Your task to perform on an android device: change text size in settings app Image 0: 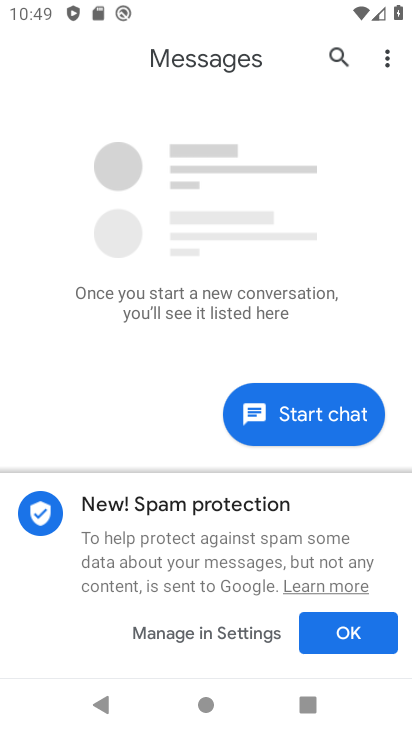
Step 0: press home button
Your task to perform on an android device: change text size in settings app Image 1: 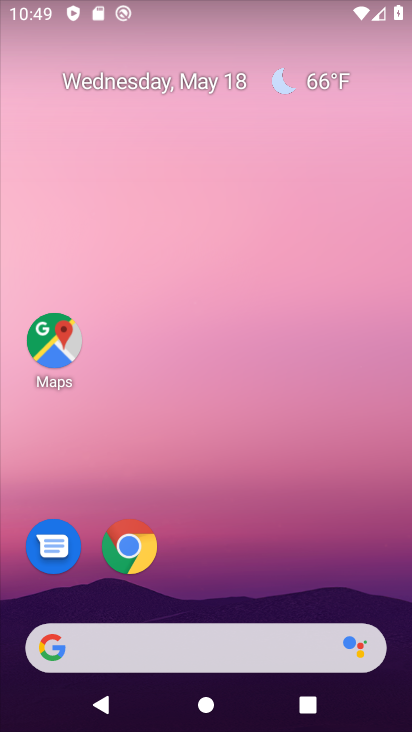
Step 1: drag from (222, 726) to (225, 229)
Your task to perform on an android device: change text size in settings app Image 2: 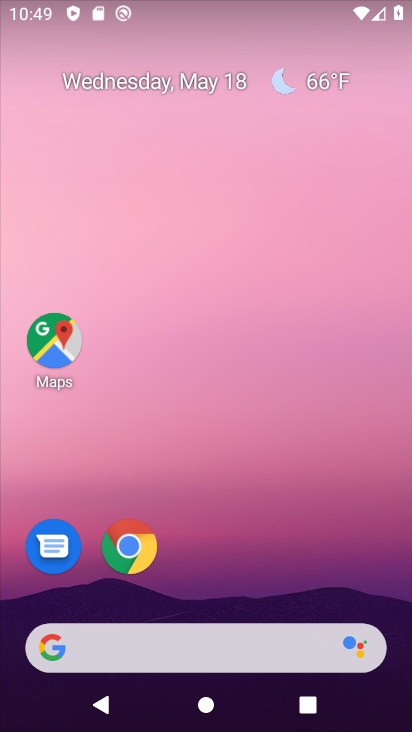
Step 2: drag from (227, 725) to (230, 168)
Your task to perform on an android device: change text size in settings app Image 3: 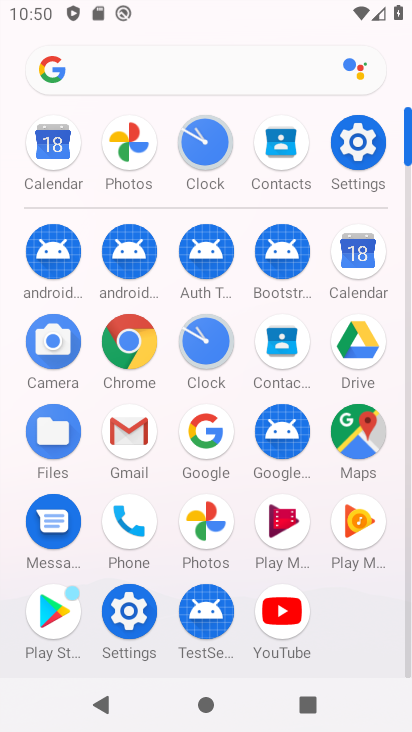
Step 3: click (132, 610)
Your task to perform on an android device: change text size in settings app Image 4: 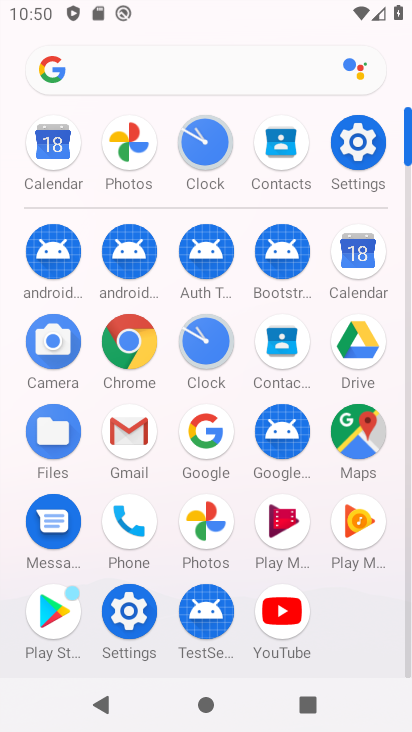
Step 4: click (359, 143)
Your task to perform on an android device: change text size in settings app Image 5: 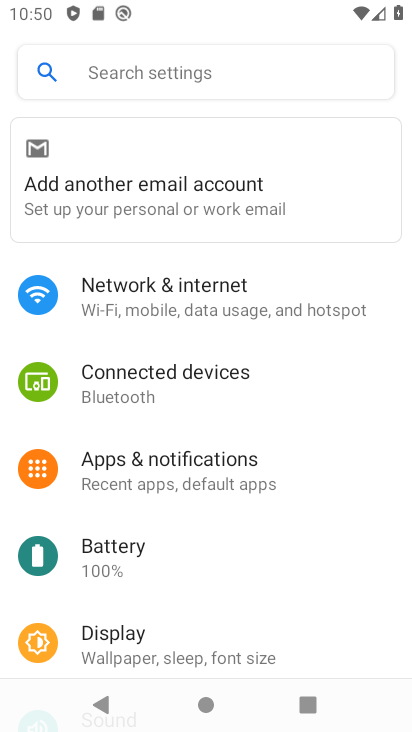
Step 5: drag from (161, 652) to (184, 365)
Your task to perform on an android device: change text size in settings app Image 6: 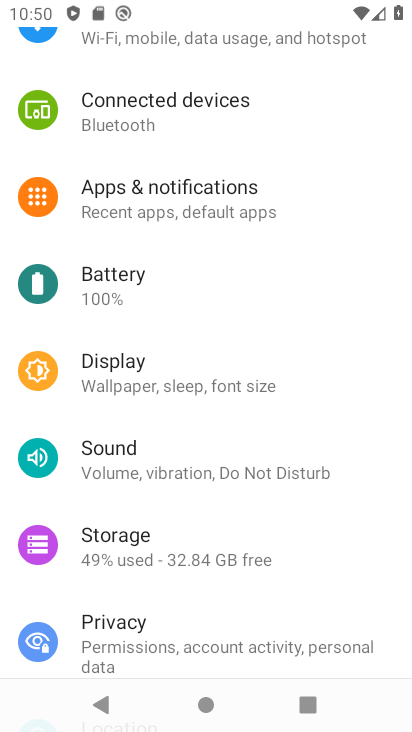
Step 6: click (175, 383)
Your task to perform on an android device: change text size in settings app Image 7: 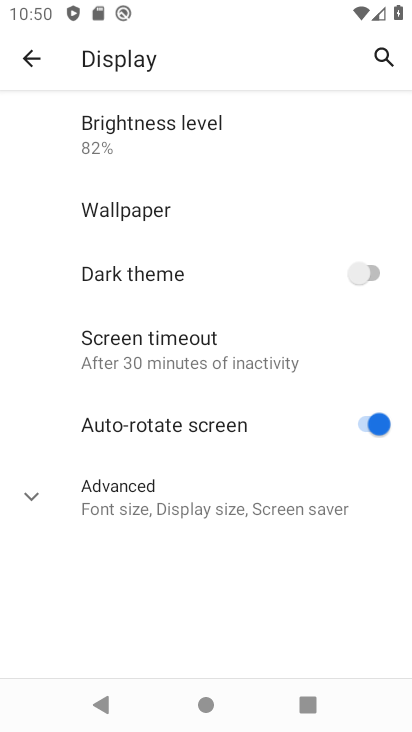
Step 7: click (149, 501)
Your task to perform on an android device: change text size in settings app Image 8: 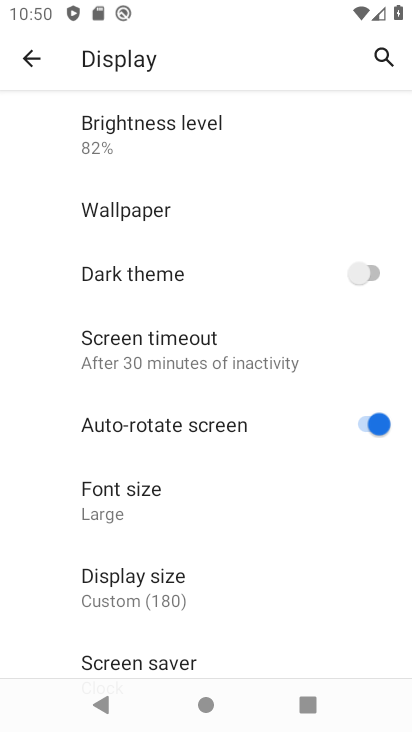
Step 8: drag from (125, 564) to (127, 410)
Your task to perform on an android device: change text size in settings app Image 9: 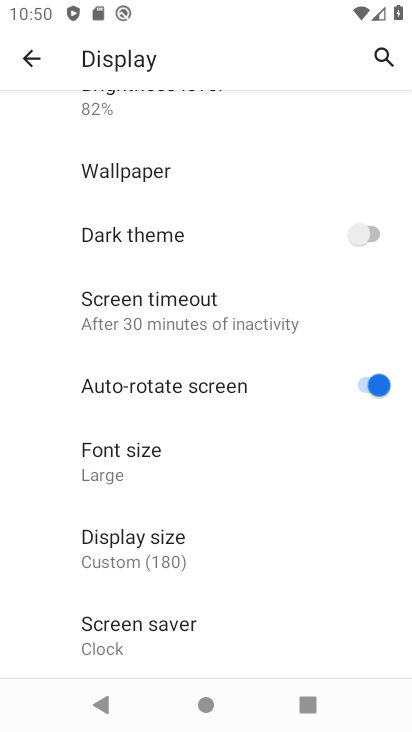
Step 9: click (95, 453)
Your task to perform on an android device: change text size in settings app Image 10: 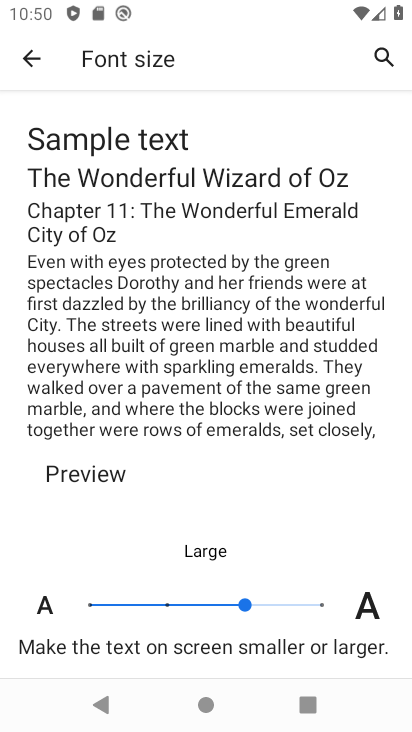
Step 10: click (169, 604)
Your task to perform on an android device: change text size in settings app Image 11: 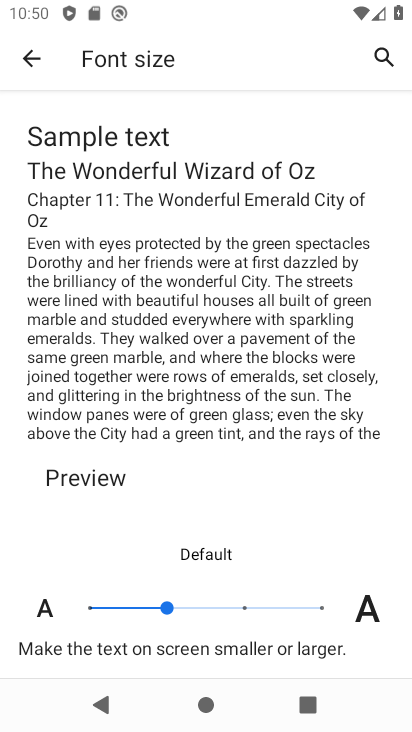
Step 11: task complete